Your task to perform on an android device: Open settings on Google Maps Image 0: 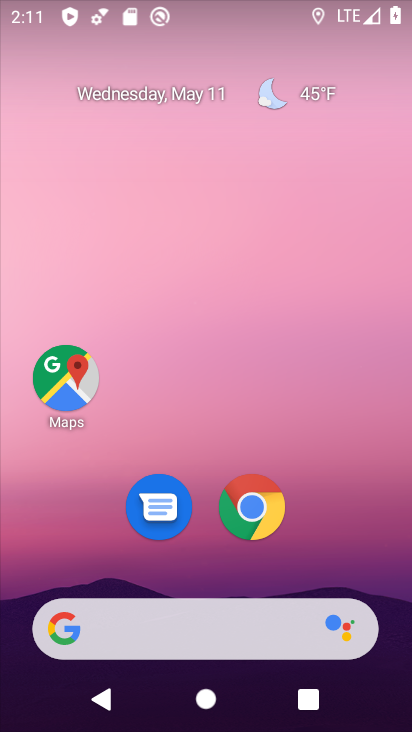
Step 0: drag from (336, 531) to (220, 10)
Your task to perform on an android device: Open settings on Google Maps Image 1: 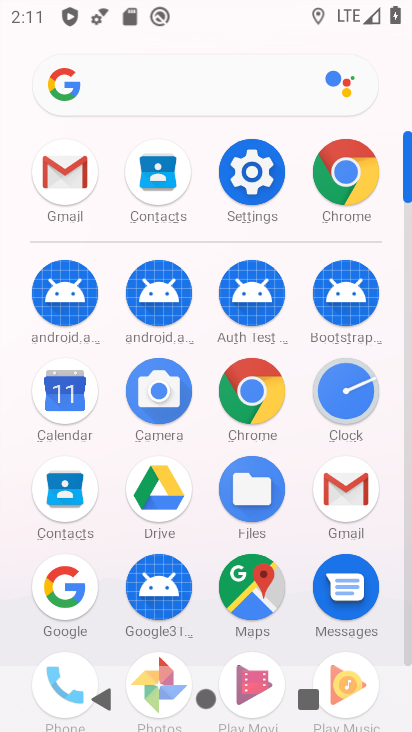
Step 1: click (248, 591)
Your task to perform on an android device: Open settings on Google Maps Image 2: 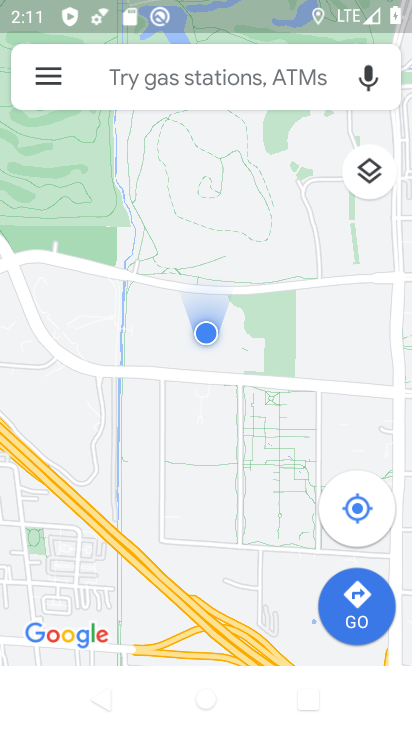
Step 2: click (36, 75)
Your task to perform on an android device: Open settings on Google Maps Image 3: 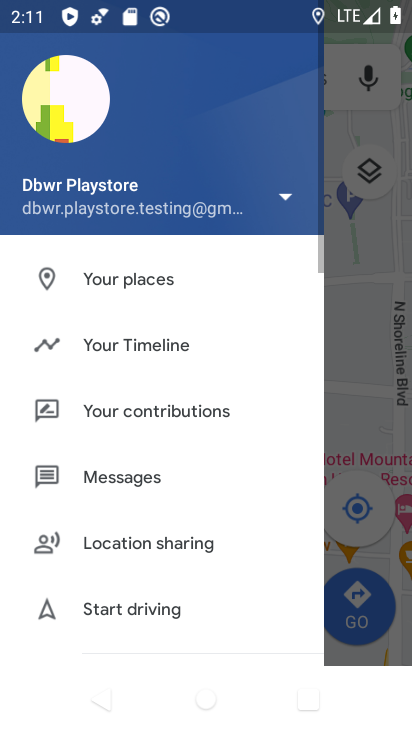
Step 3: drag from (176, 561) to (186, 216)
Your task to perform on an android device: Open settings on Google Maps Image 4: 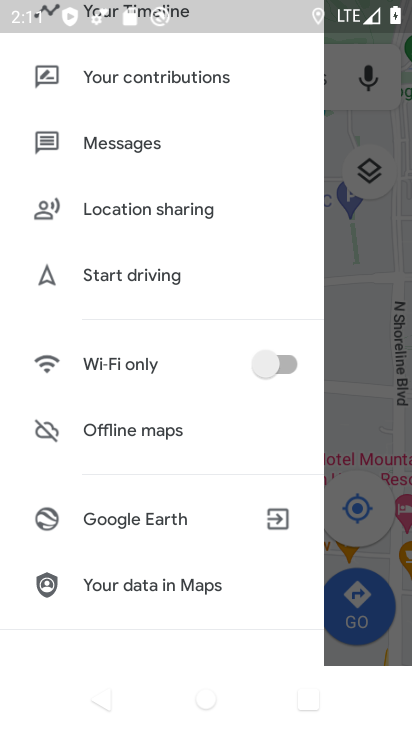
Step 4: drag from (185, 613) to (185, 164)
Your task to perform on an android device: Open settings on Google Maps Image 5: 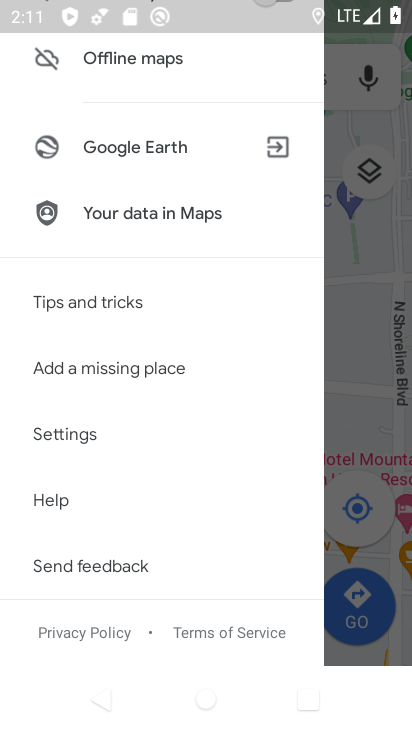
Step 5: click (77, 440)
Your task to perform on an android device: Open settings on Google Maps Image 6: 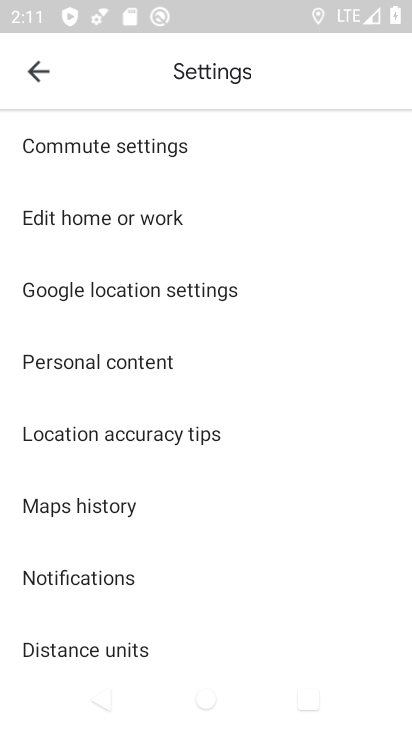
Step 6: task complete